Your task to perform on an android device: turn pop-ups off in chrome Image 0: 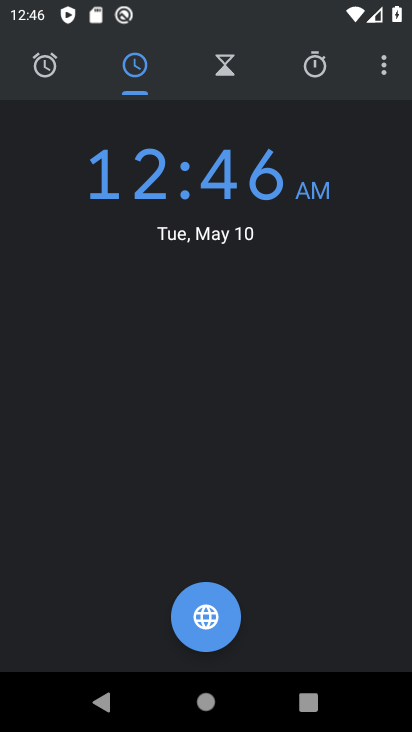
Step 0: press home button
Your task to perform on an android device: turn pop-ups off in chrome Image 1: 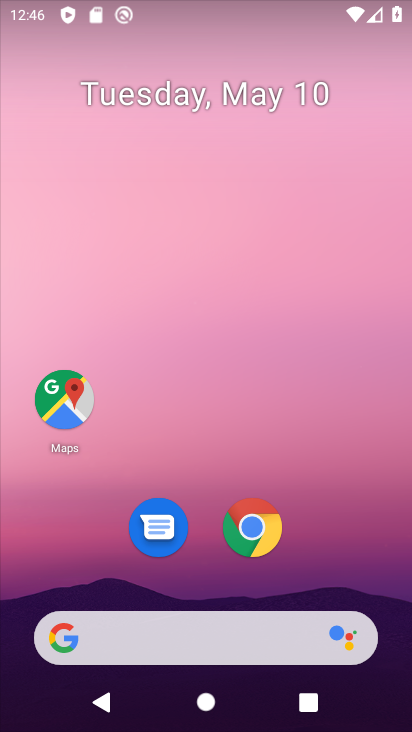
Step 1: click (265, 536)
Your task to perform on an android device: turn pop-ups off in chrome Image 2: 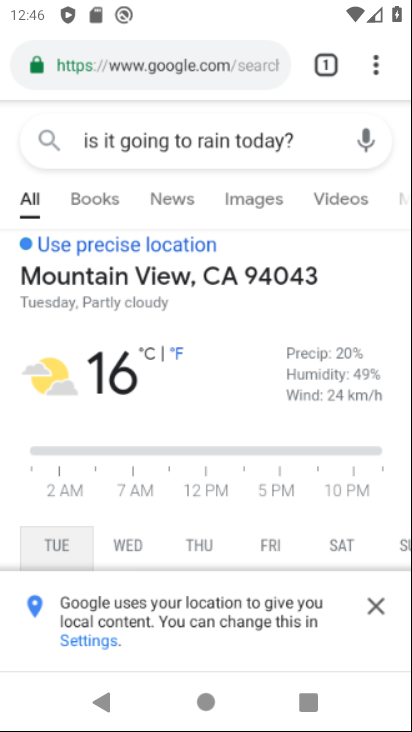
Step 2: click (381, 67)
Your task to perform on an android device: turn pop-ups off in chrome Image 3: 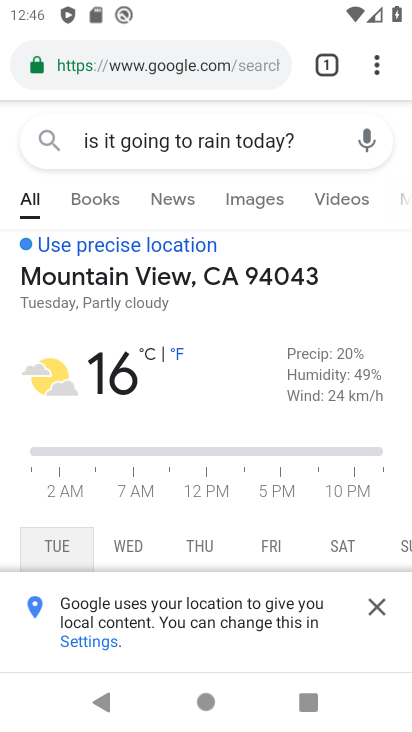
Step 3: drag from (376, 61) to (222, 581)
Your task to perform on an android device: turn pop-ups off in chrome Image 4: 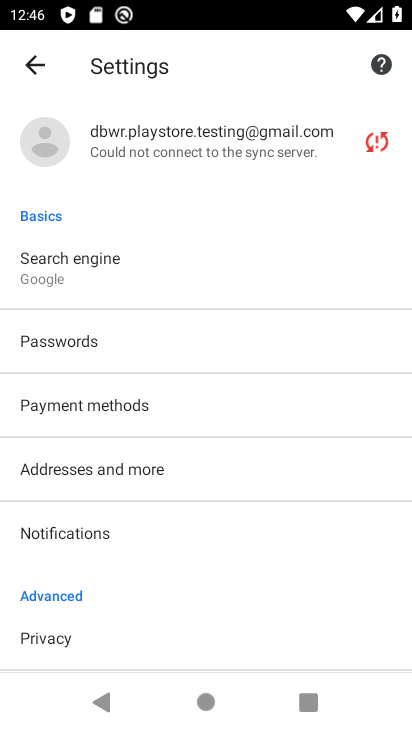
Step 4: drag from (219, 568) to (215, 289)
Your task to perform on an android device: turn pop-ups off in chrome Image 5: 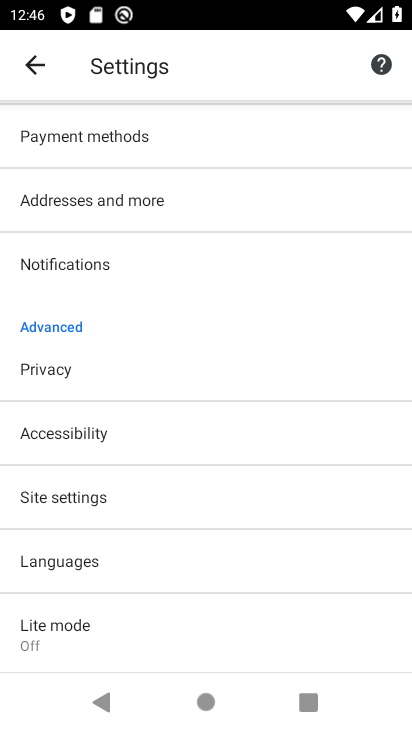
Step 5: click (118, 503)
Your task to perform on an android device: turn pop-ups off in chrome Image 6: 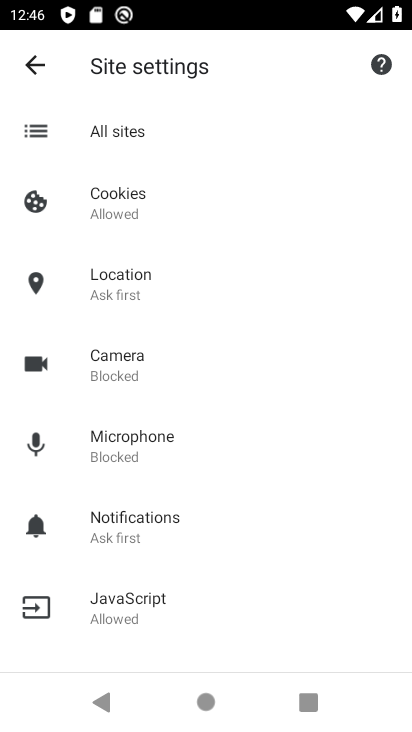
Step 6: drag from (212, 623) to (217, 272)
Your task to perform on an android device: turn pop-ups off in chrome Image 7: 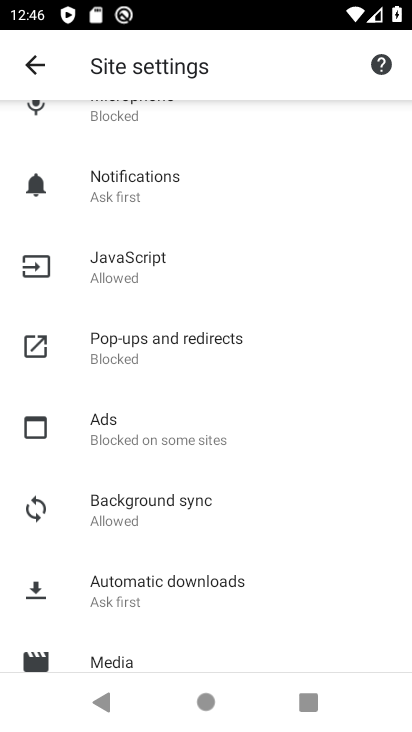
Step 7: drag from (191, 626) to (227, 612)
Your task to perform on an android device: turn pop-ups off in chrome Image 8: 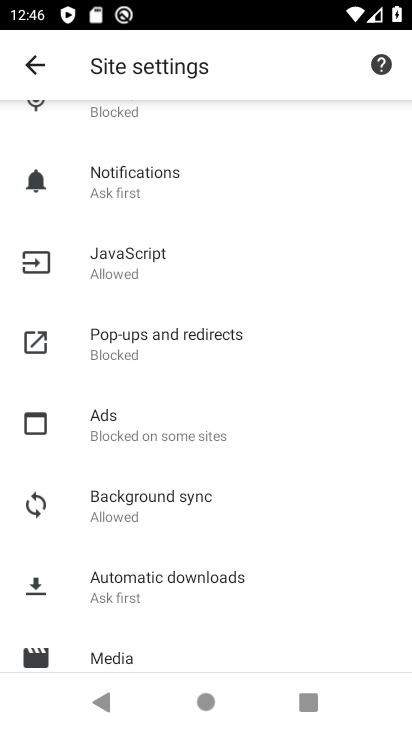
Step 8: click (167, 342)
Your task to perform on an android device: turn pop-ups off in chrome Image 9: 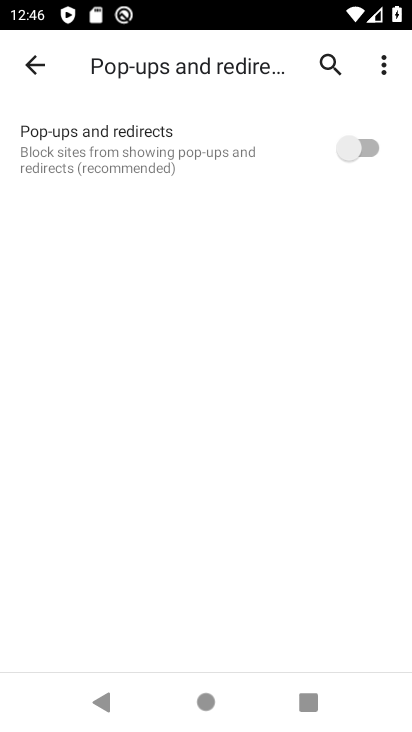
Step 9: task complete